Your task to perform on an android device: turn on wifi Image 0: 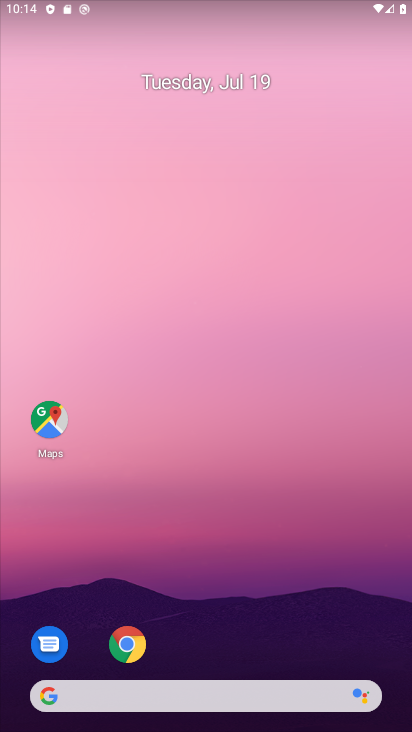
Step 0: drag from (184, 693) to (164, 15)
Your task to perform on an android device: turn on wifi Image 1: 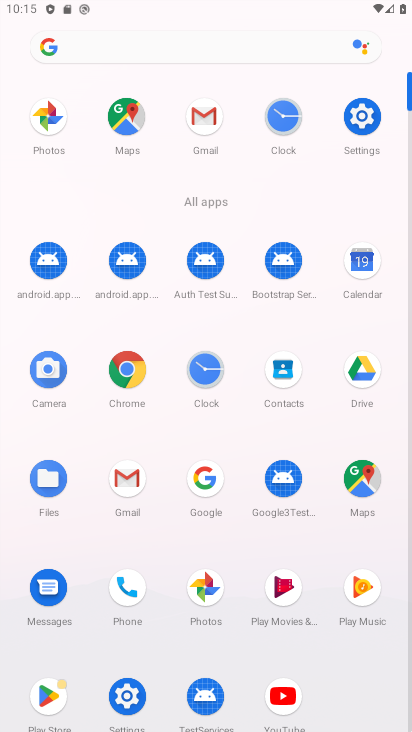
Step 1: click (365, 112)
Your task to perform on an android device: turn on wifi Image 2: 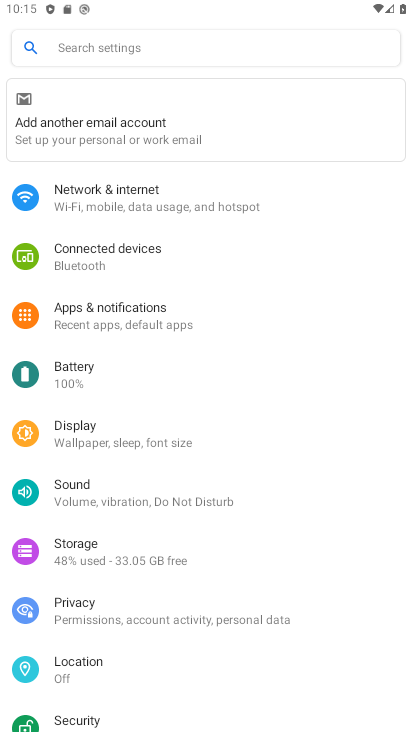
Step 2: click (166, 193)
Your task to perform on an android device: turn on wifi Image 3: 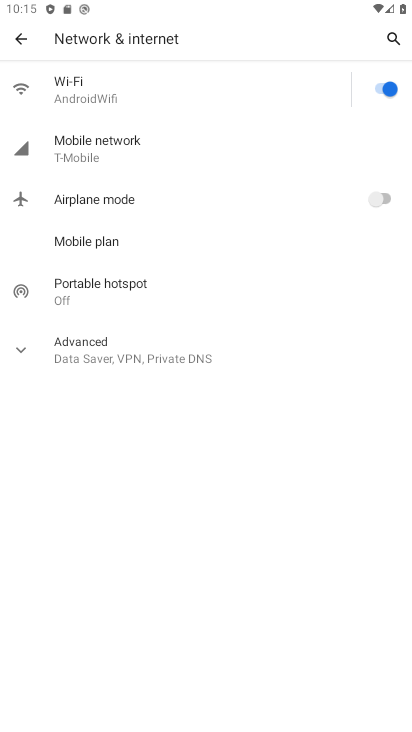
Step 3: task complete